Your task to perform on an android device: change the clock display to show seconds Image 0: 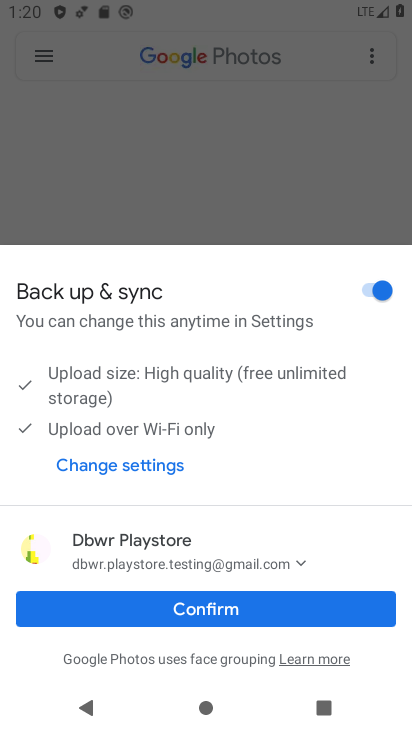
Step 0: press home button
Your task to perform on an android device: change the clock display to show seconds Image 1: 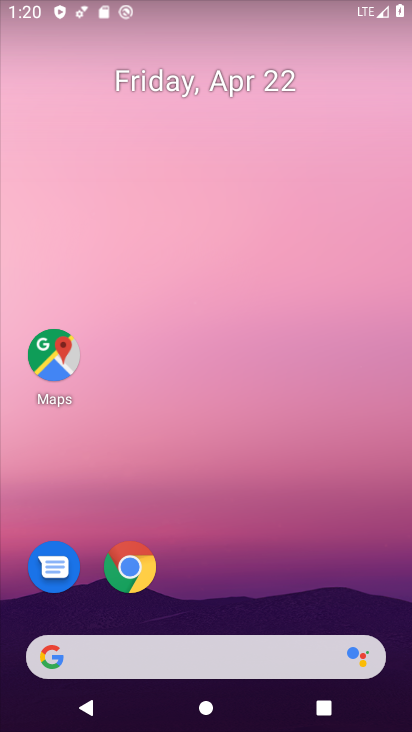
Step 1: drag from (369, 605) to (283, 70)
Your task to perform on an android device: change the clock display to show seconds Image 2: 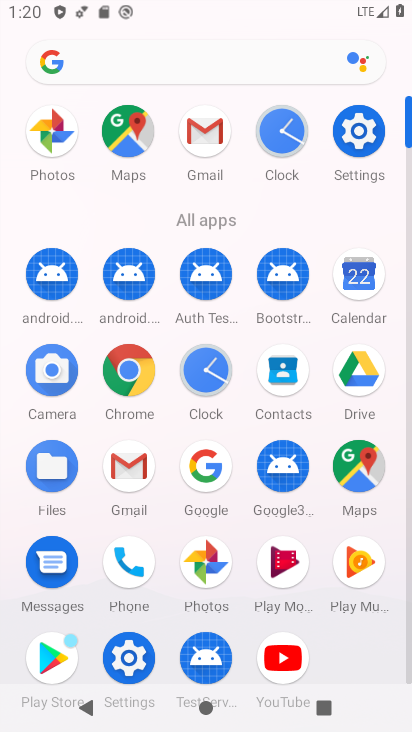
Step 2: click (203, 382)
Your task to perform on an android device: change the clock display to show seconds Image 3: 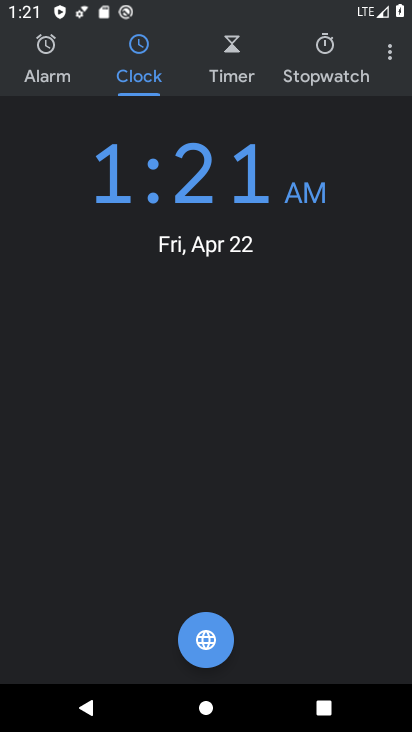
Step 3: click (379, 53)
Your task to perform on an android device: change the clock display to show seconds Image 4: 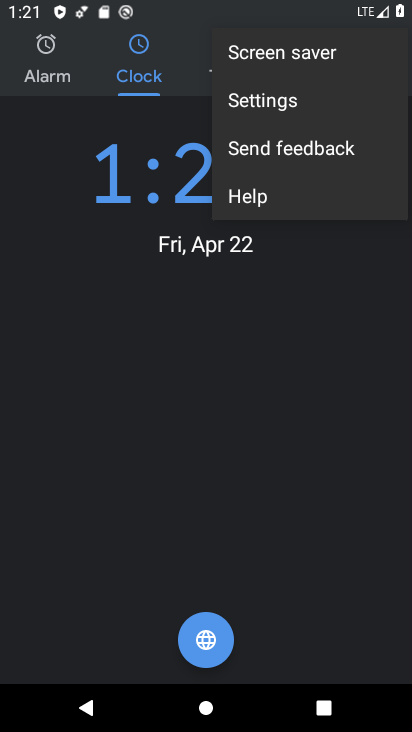
Step 4: click (266, 99)
Your task to perform on an android device: change the clock display to show seconds Image 5: 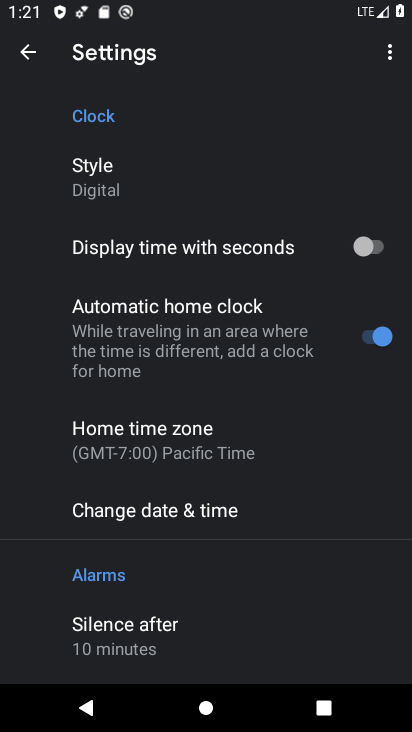
Step 5: click (364, 247)
Your task to perform on an android device: change the clock display to show seconds Image 6: 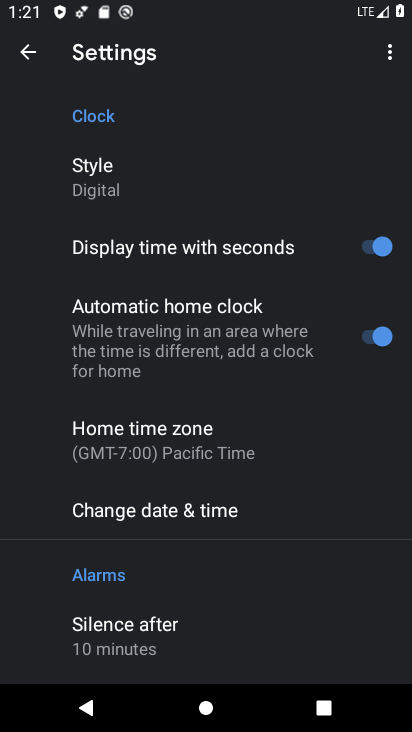
Step 6: task complete